Your task to perform on an android device: open app "Pinterest" (install if not already installed), go to login, and select forgot password Image 0: 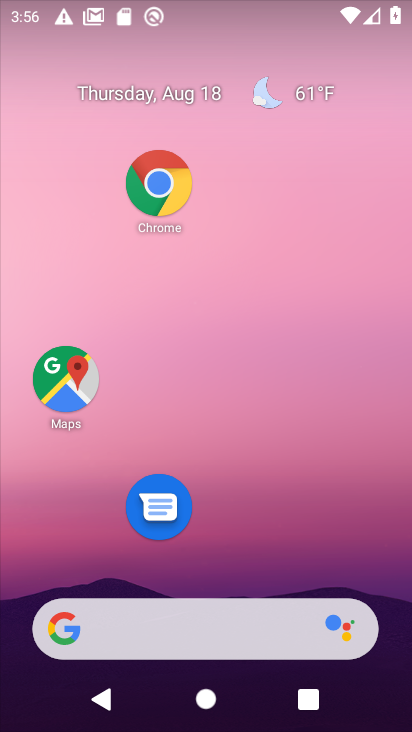
Step 0: drag from (282, 544) to (336, 67)
Your task to perform on an android device: open app "Pinterest" (install if not already installed), go to login, and select forgot password Image 1: 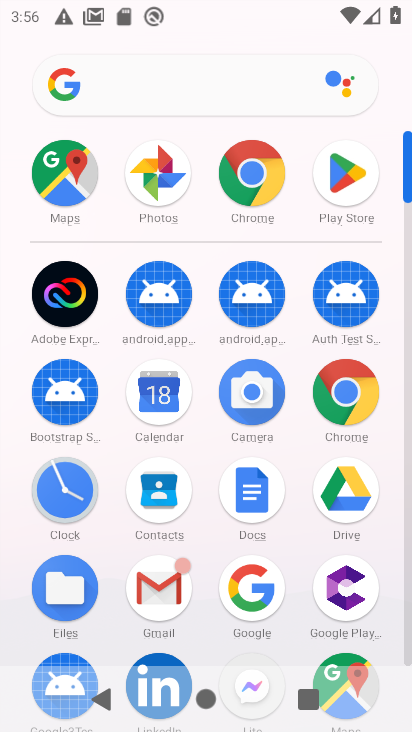
Step 1: click (346, 175)
Your task to perform on an android device: open app "Pinterest" (install if not already installed), go to login, and select forgot password Image 2: 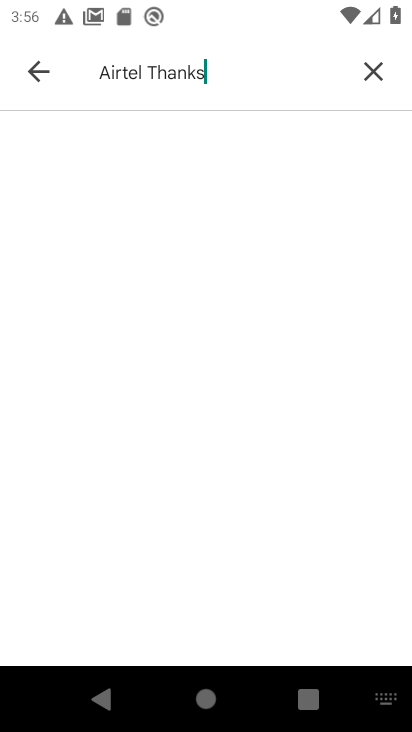
Step 2: click (378, 78)
Your task to perform on an android device: open app "Pinterest" (install if not already installed), go to login, and select forgot password Image 3: 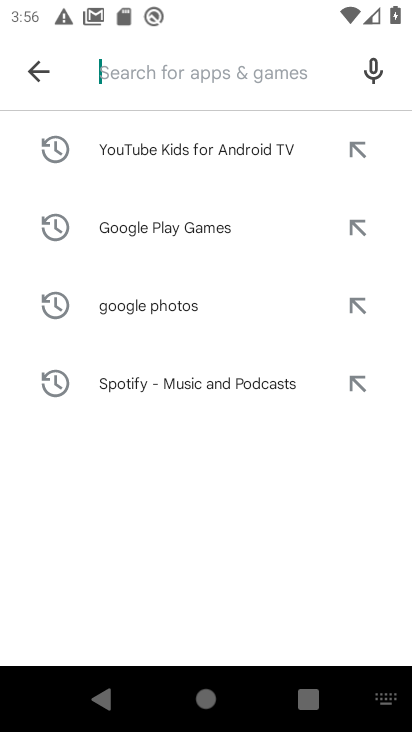
Step 3: click (147, 76)
Your task to perform on an android device: open app "Pinterest" (install if not already installed), go to login, and select forgot password Image 4: 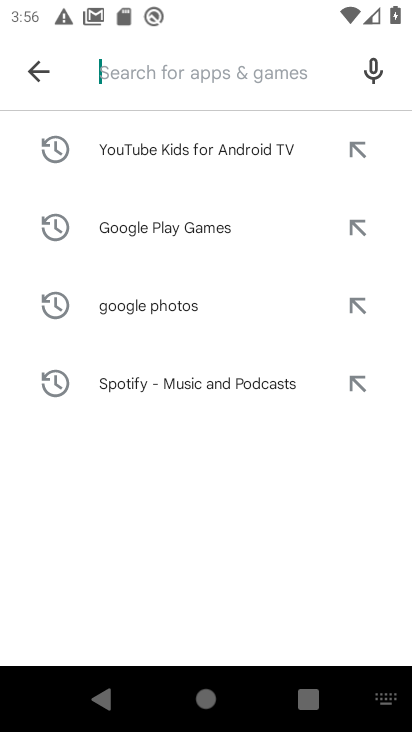
Step 4: type "Pinterest"
Your task to perform on an android device: open app "Pinterest" (install if not already installed), go to login, and select forgot password Image 5: 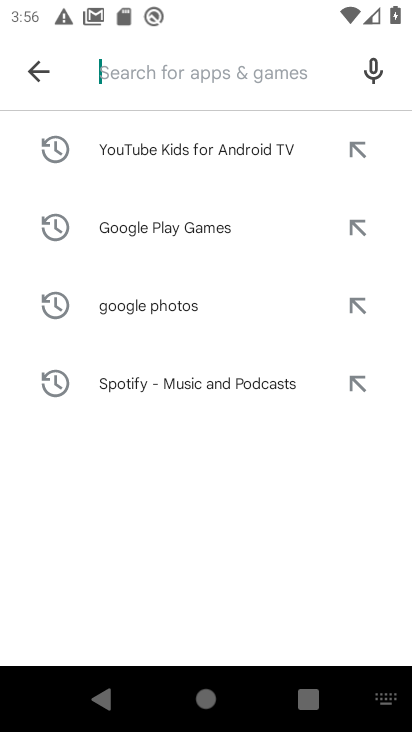
Step 5: click (176, 502)
Your task to perform on an android device: open app "Pinterest" (install if not already installed), go to login, and select forgot password Image 6: 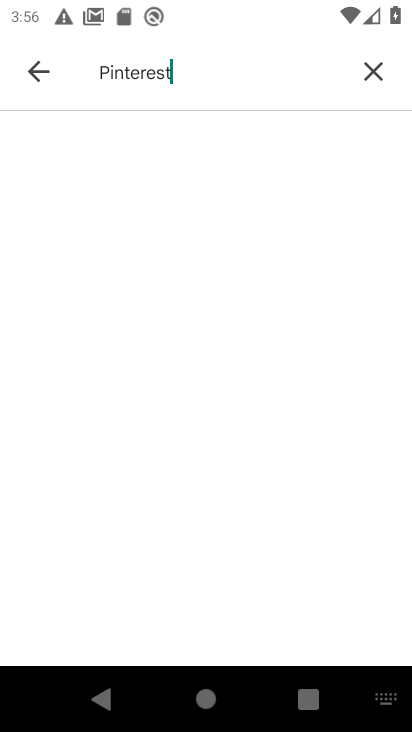
Step 6: task complete